Your task to perform on an android device: find which apps use the phone's location Image 0: 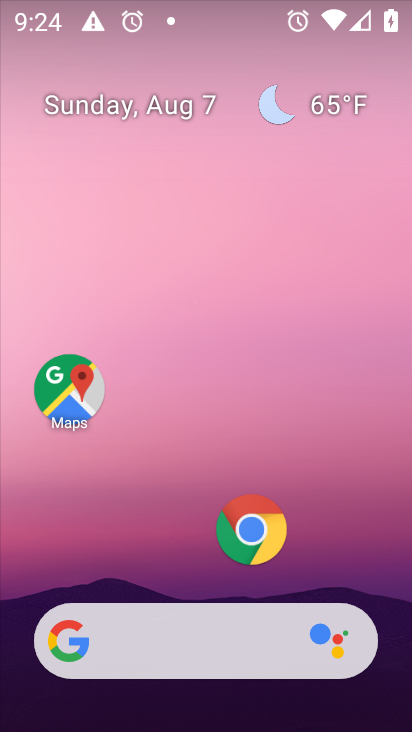
Step 0: drag from (161, 513) to (196, 170)
Your task to perform on an android device: find which apps use the phone's location Image 1: 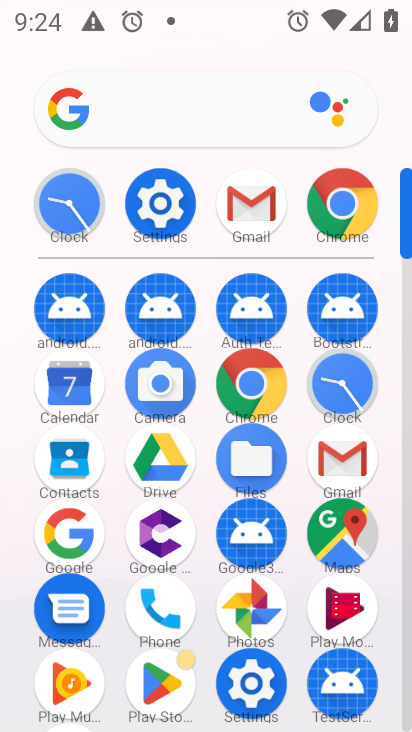
Step 1: click (240, 682)
Your task to perform on an android device: find which apps use the phone's location Image 2: 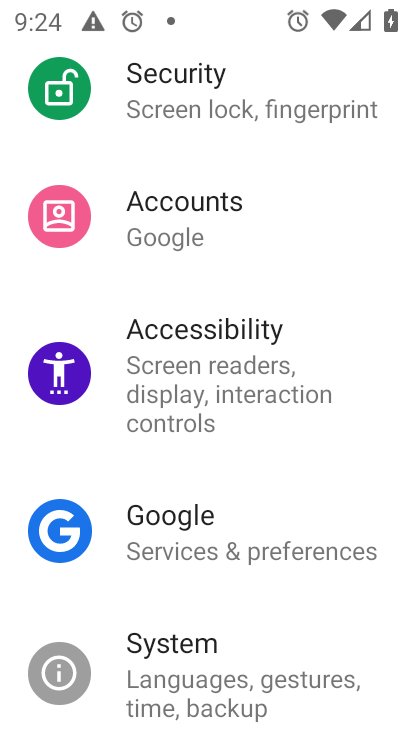
Step 2: drag from (225, 272) to (225, 499)
Your task to perform on an android device: find which apps use the phone's location Image 3: 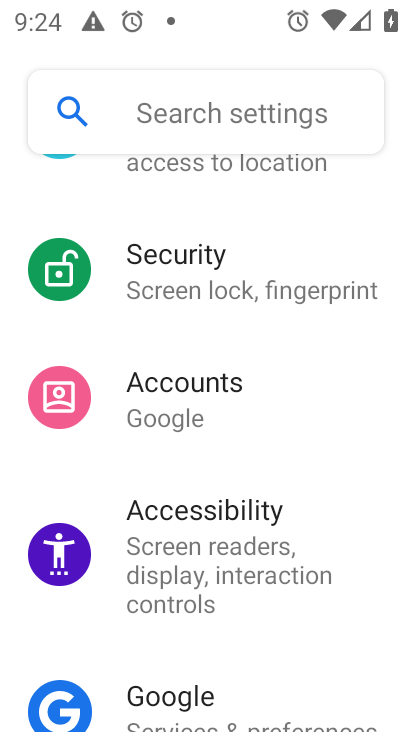
Step 3: drag from (209, 302) to (203, 576)
Your task to perform on an android device: find which apps use the phone's location Image 4: 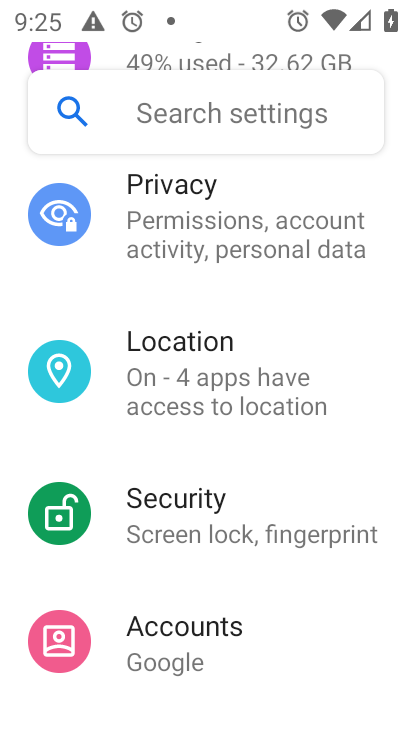
Step 4: click (204, 404)
Your task to perform on an android device: find which apps use the phone's location Image 5: 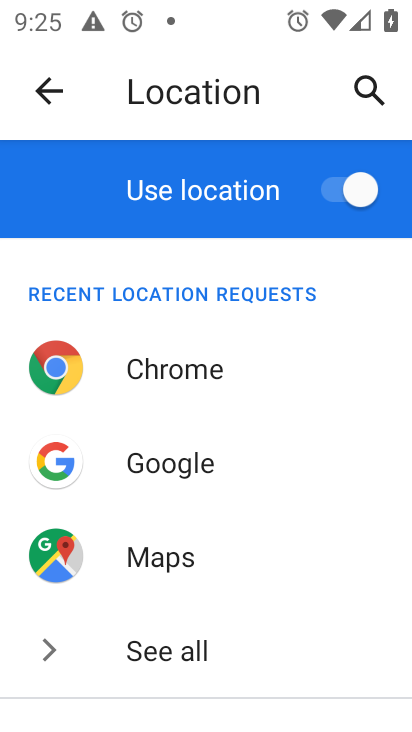
Step 5: drag from (153, 621) to (176, 403)
Your task to perform on an android device: find which apps use the phone's location Image 6: 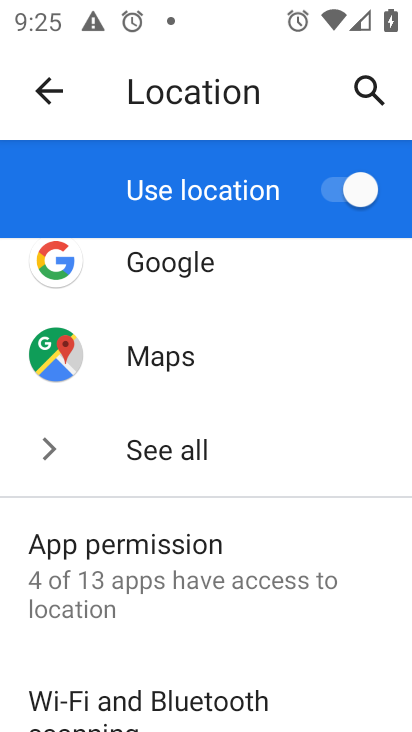
Step 6: click (119, 570)
Your task to perform on an android device: find which apps use the phone's location Image 7: 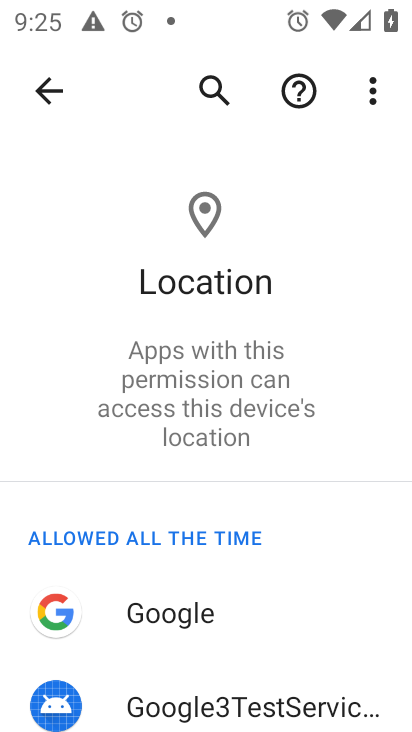
Step 7: task complete